Your task to perform on an android device: clear history in the chrome app Image 0: 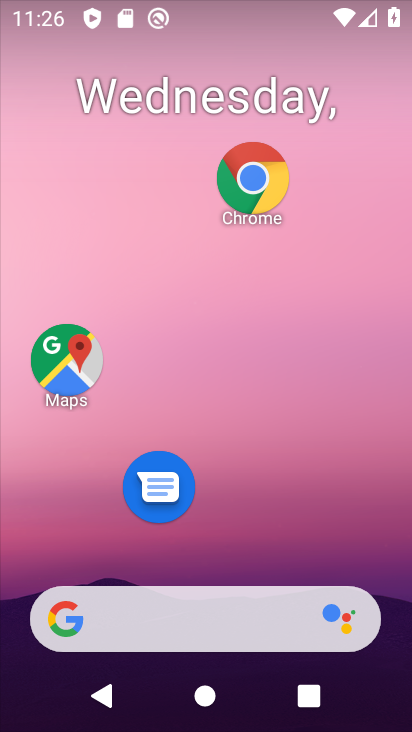
Step 0: click (249, 184)
Your task to perform on an android device: clear history in the chrome app Image 1: 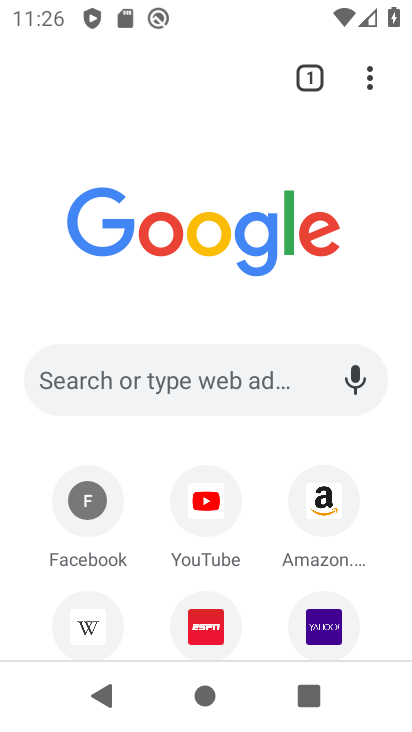
Step 1: click (369, 78)
Your task to perform on an android device: clear history in the chrome app Image 2: 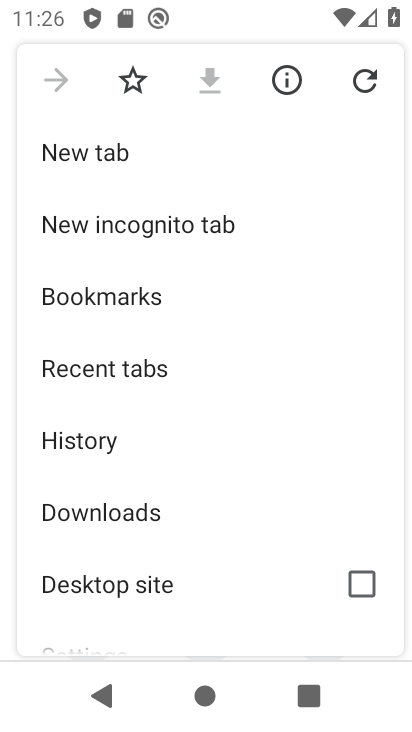
Step 2: click (130, 441)
Your task to perform on an android device: clear history in the chrome app Image 3: 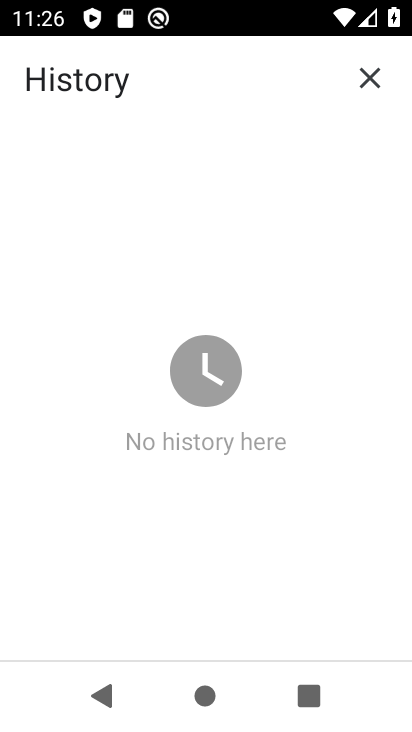
Step 3: task complete